Your task to perform on an android device: Is it going to rain tomorrow? Image 0: 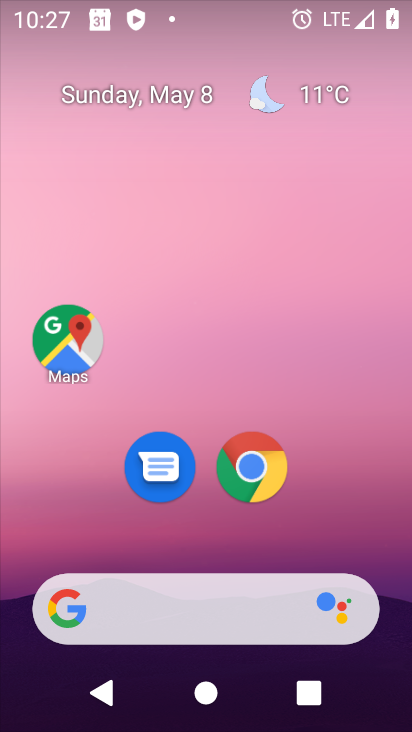
Step 0: click (165, 620)
Your task to perform on an android device: Is it going to rain tomorrow? Image 1: 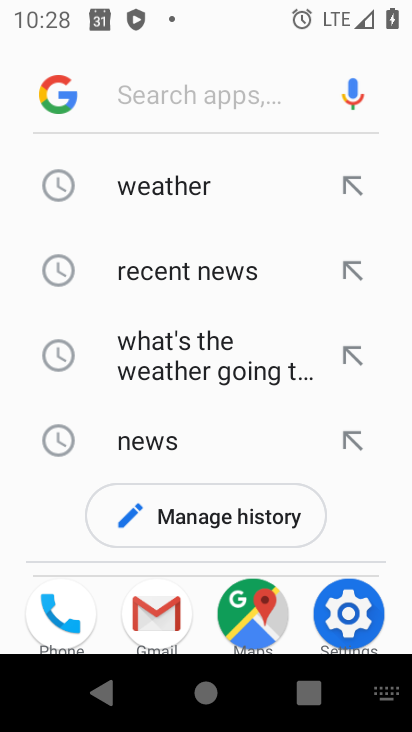
Step 1: click (130, 208)
Your task to perform on an android device: Is it going to rain tomorrow? Image 2: 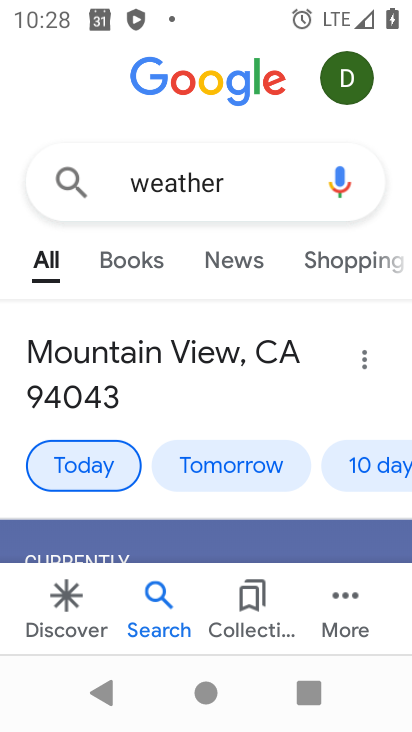
Step 2: task complete